Your task to perform on an android device: When is my next meeting? Image 0: 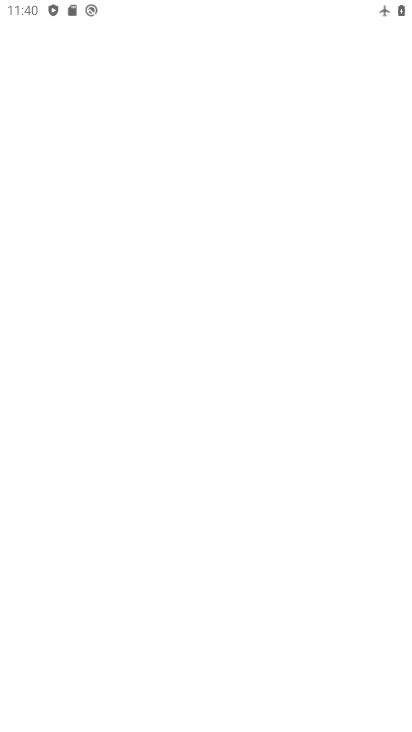
Step 0: drag from (297, 636) to (232, 124)
Your task to perform on an android device: When is my next meeting? Image 1: 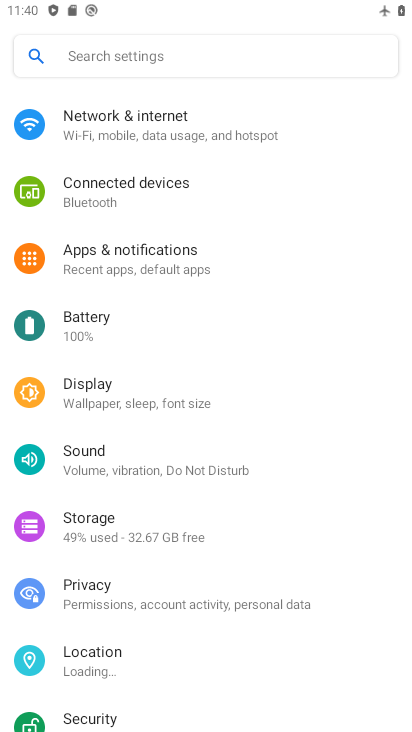
Step 1: press home button
Your task to perform on an android device: When is my next meeting? Image 2: 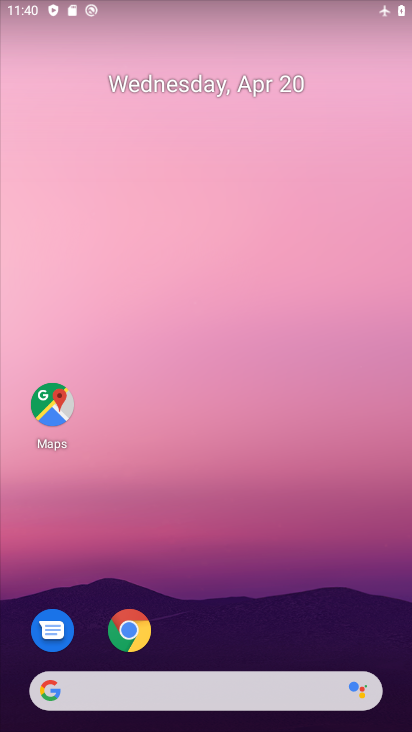
Step 2: drag from (283, 563) to (252, 32)
Your task to perform on an android device: When is my next meeting? Image 3: 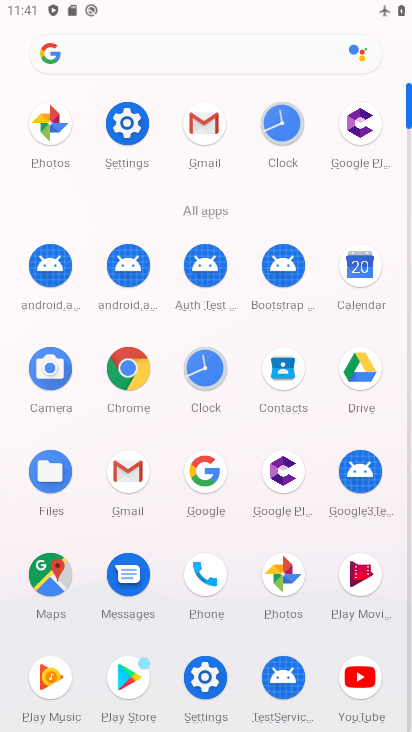
Step 3: click (375, 268)
Your task to perform on an android device: When is my next meeting? Image 4: 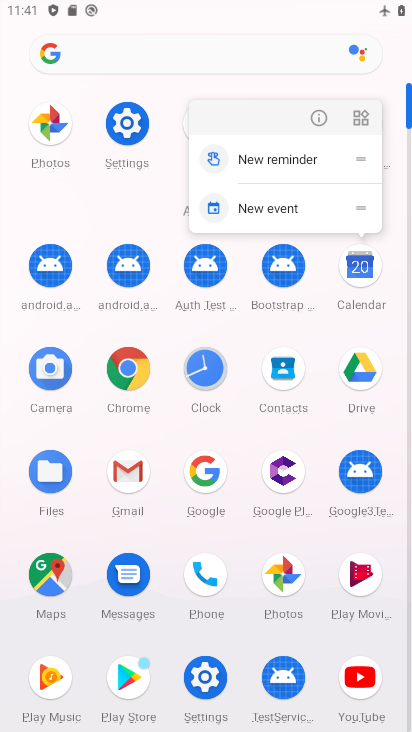
Step 4: click (363, 277)
Your task to perform on an android device: When is my next meeting? Image 5: 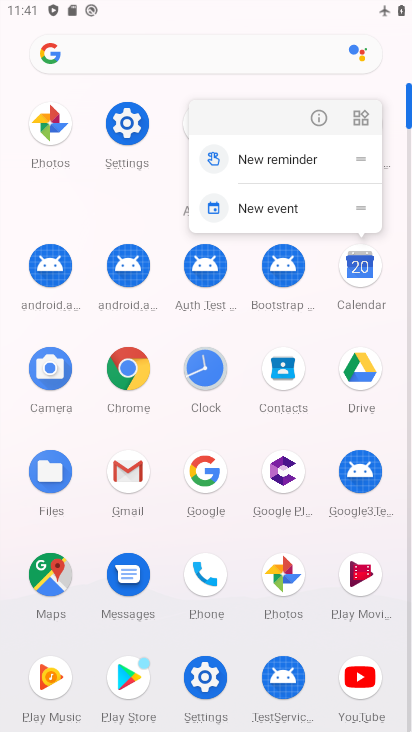
Step 5: click (364, 276)
Your task to perform on an android device: When is my next meeting? Image 6: 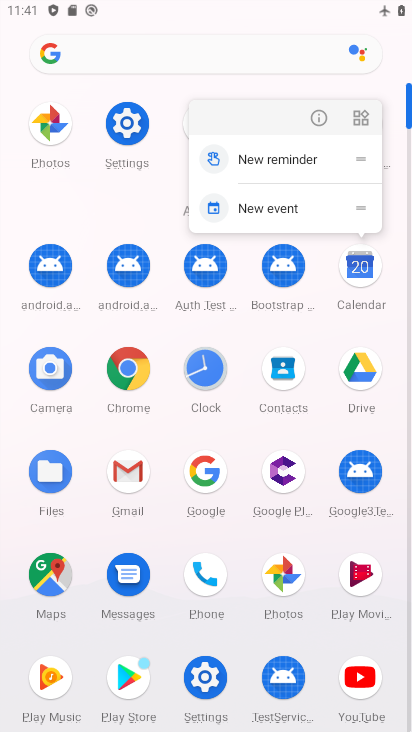
Step 6: click (365, 276)
Your task to perform on an android device: When is my next meeting? Image 7: 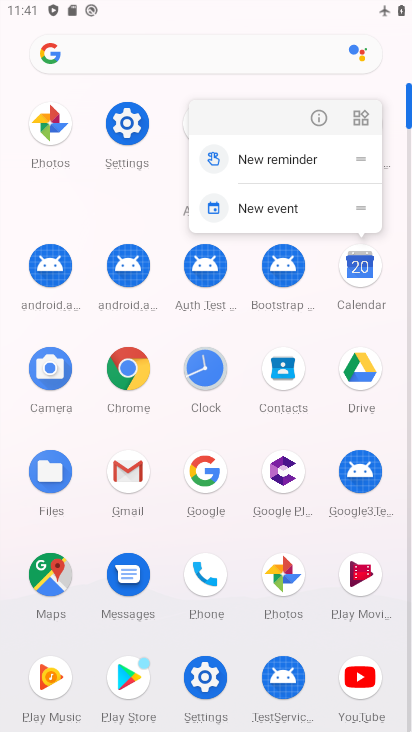
Step 7: click (365, 276)
Your task to perform on an android device: When is my next meeting? Image 8: 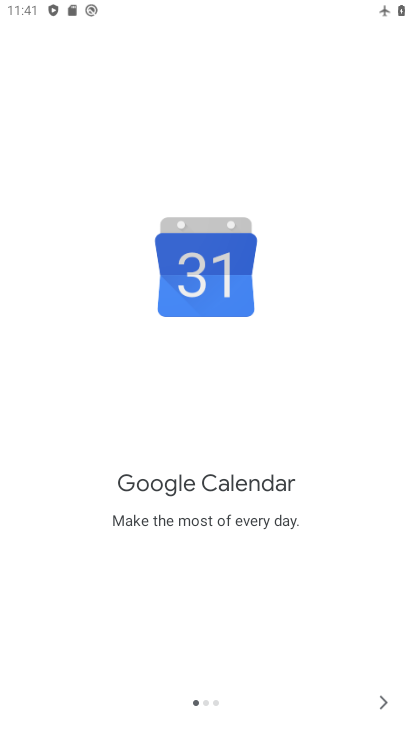
Step 8: click (386, 710)
Your task to perform on an android device: When is my next meeting? Image 9: 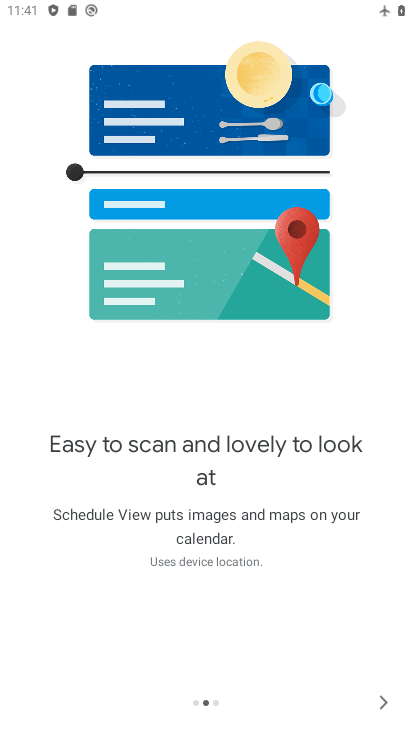
Step 9: click (384, 703)
Your task to perform on an android device: When is my next meeting? Image 10: 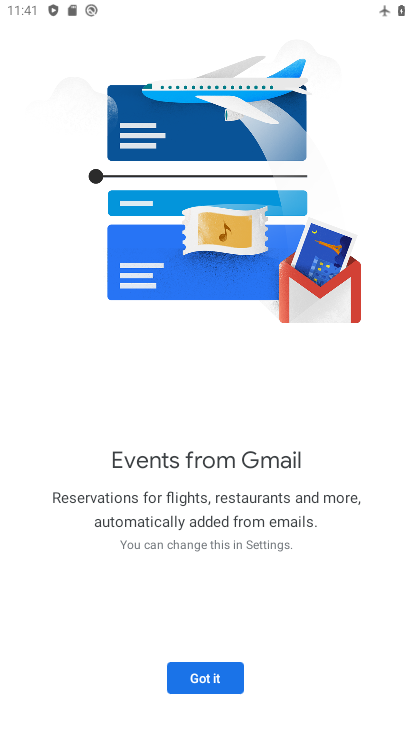
Step 10: click (217, 694)
Your task to perform on an android device: When is my next meeting? Image 11: 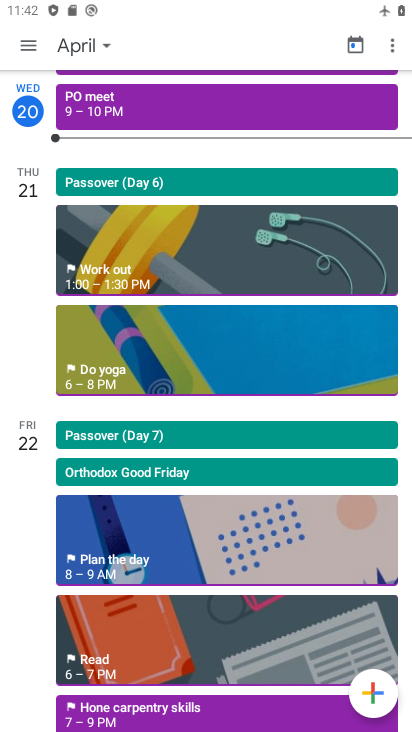
Step 11: click (88, 30)
Your task to perform on an android device: When is my next meeting? Image 12: 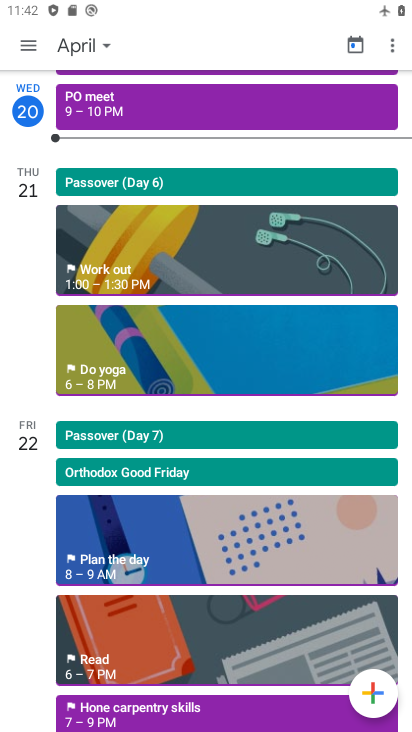
Step 12: task complete